Your task to perform on an android device: Check the weather Image 0: 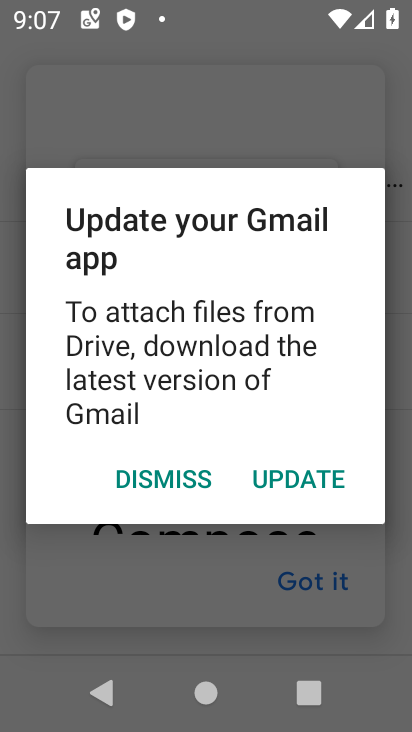
Step 0: press home button
Your task to perform on an android device: Check the weather Image 1: 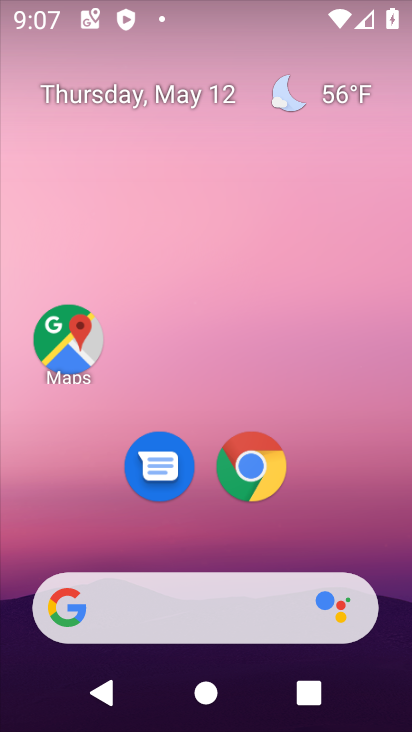
Step 1: drag from (330, 463) to (317, 188)
Your task to perform on an android device: Check the weather Image 2: 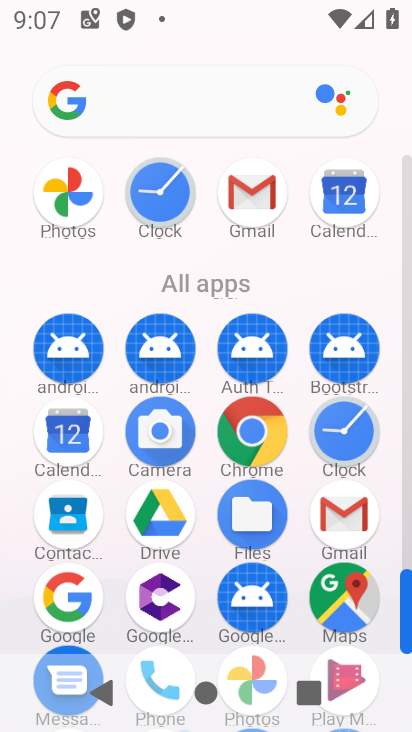
Step 2: click (79, 595)
Your task to perform on an android device: Check the weather Image 3: 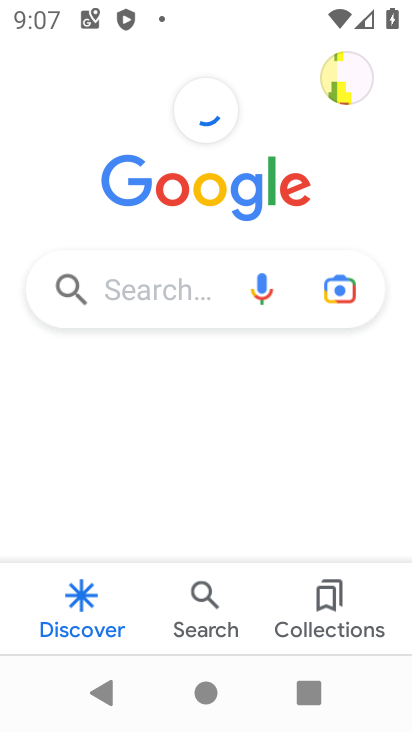
Step 3: click (150, 296)
Your task to perform on an android device: Check the weather Image 4: 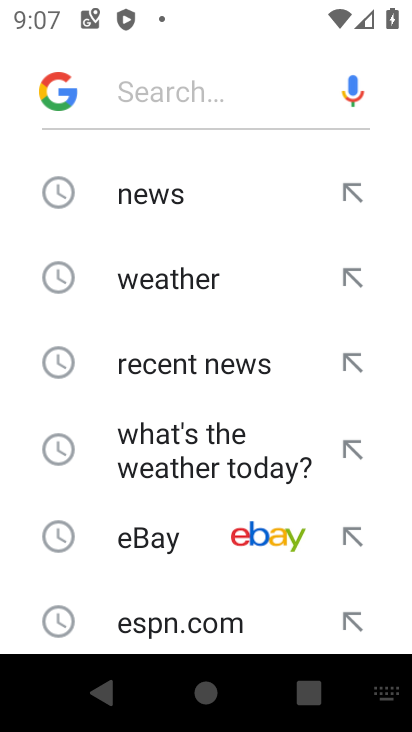
Step 4: type "check the weather"
Your task to perform on an android device: Check the weather Image 5: 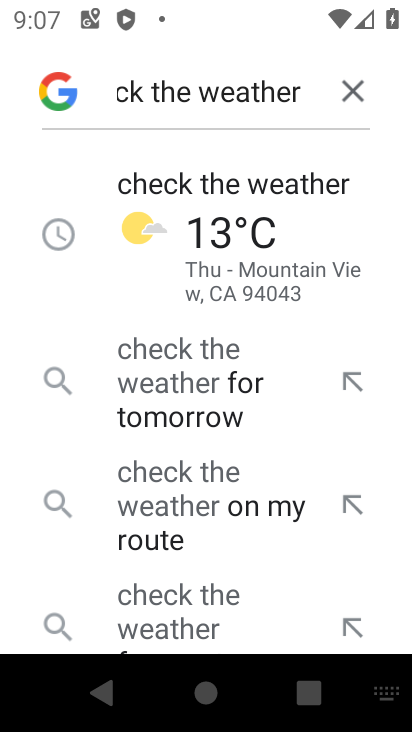
Step 5: click (306, 200)
Your task to perform on an android device: Check the weather Image 6: 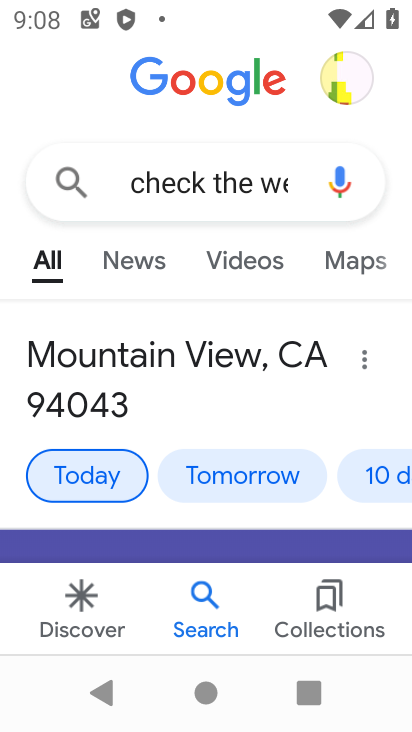
Step 6: task complete